Your task to perform on an android device: View the shopping cart on amazon. Search for sony triple a on amazon, select the first entry, add it to the cart, then select checkout. Image 0: 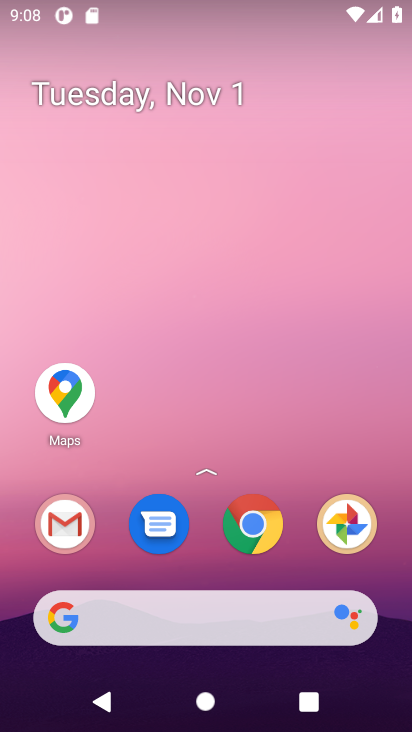
Step 0: press home button
Your task to perform on an android device: View the shopping cart on amazon. Search for sony triple a on amazon, select the first entry, add it to the cart, then select checkout. Image 1: 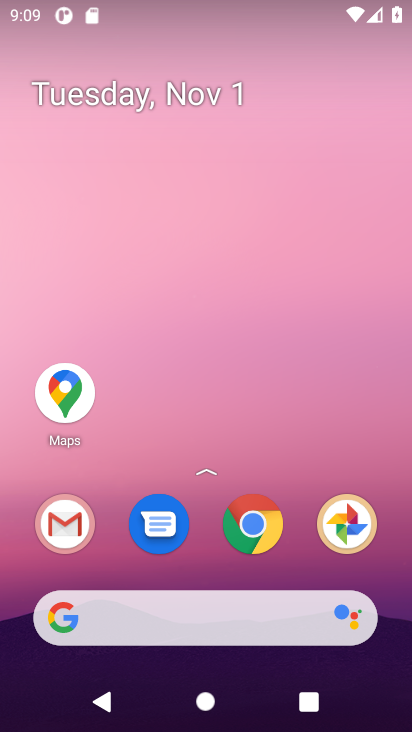
Step 1: press home button
Your task to perform on an android device: View the shopping cart on amazon. Search for sony triple a on amazon, select the first entry, add it to the cart, then select checkout. Image 2: 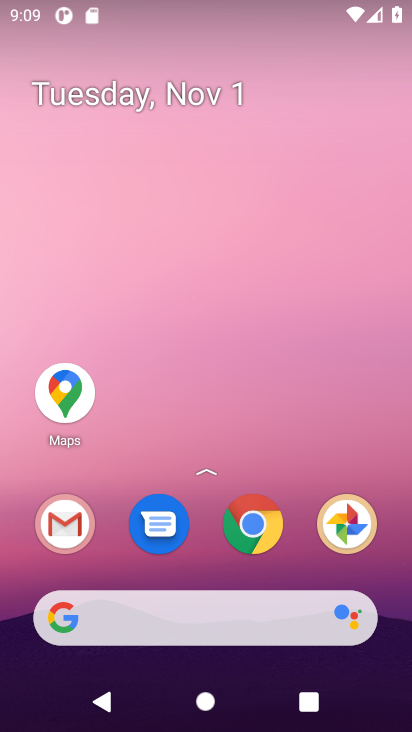
Step 2: click (90, 610)
Your task to perform on an android device: View the shopping cart on amazon. Search for sony triple a on amazon, select the first entry, add it to the cart, then select checkout. Image 3: 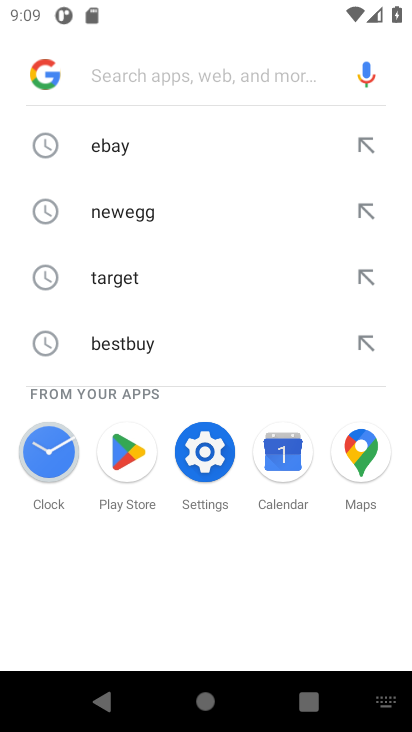
Step 3: type "amazon"
Your task to perform on an android device: View the shopping cart on amazon. Search for sony triple a on amazon, select the first entry, add it to the cart, then select checkout. Image 4: 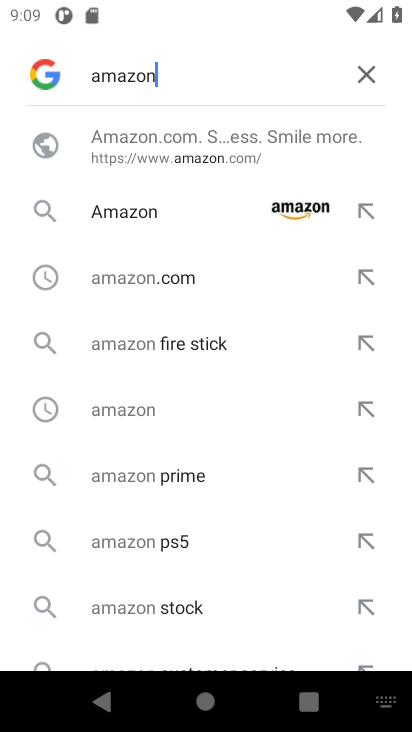
Step 4: press enter
Your task to perform on an android device: View the shopping cart on amazon. Search for sony triple a on amazon, select the first entry, add it to the cart, then select checkout. Image 5: 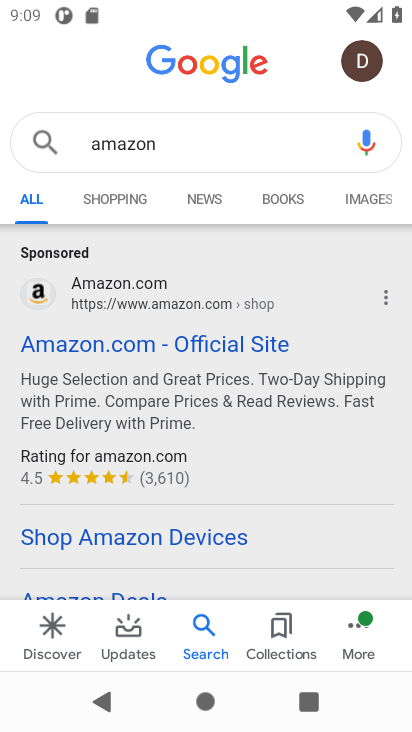
Step 5: click (69, 347)
Your task to perform on an android device: View the shopping cart on amazon. Search for sony triple a on amazon, select the first entry, add it to the cart, then select checkout. Image 6: 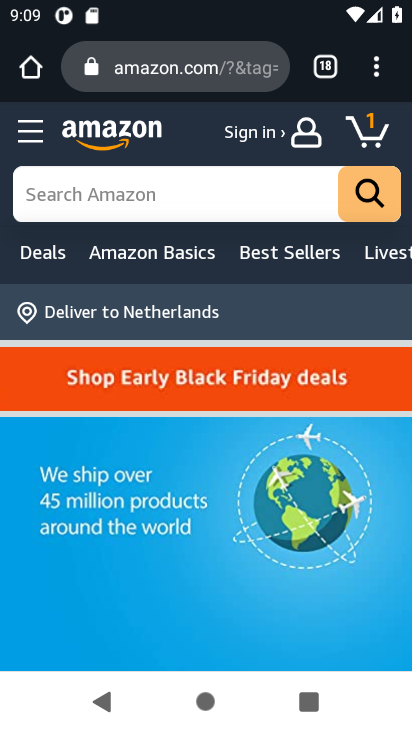
Step 6: click (366, 124)
Your task to perform on an android device: View the shopping cart on amazon. Search for sony triple a on amazon, select the first entry, add it to the cart, then select checkout. Image 7: 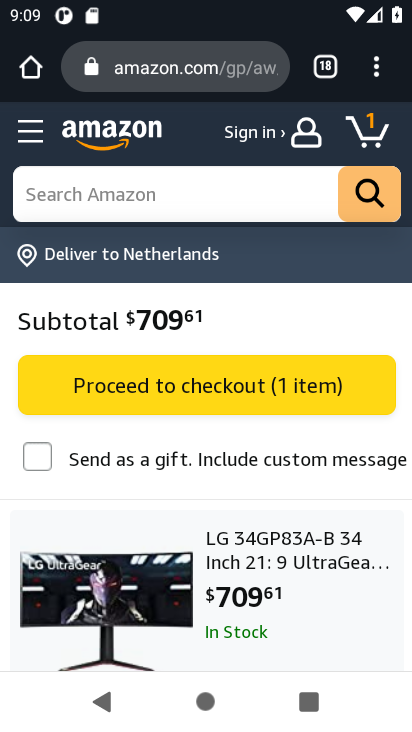
Step 7: click (51, 191)
Your task to perform on an android device: View the shopping cart on amazon. Search for sony triple a on amazon, select the first entry, add it to the cart, then select checkout. Image 8: 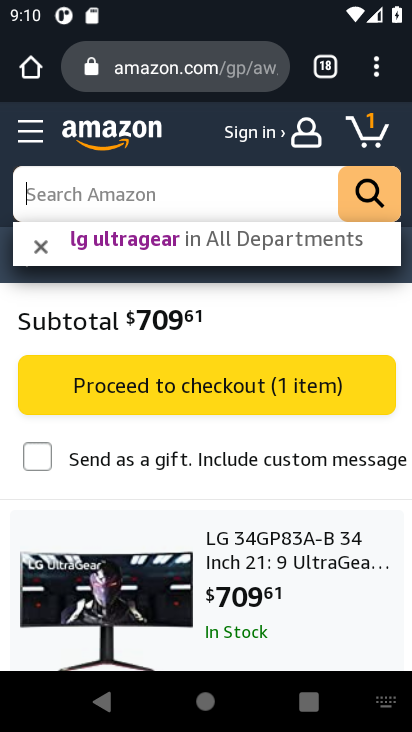
Step 8: type "sony triple a"
Your task to perform on an android device: View the shopping cart on amazon. Search for sony triple a on amazon, select the first entry, add it to the cart, then select checkout. Image 9: 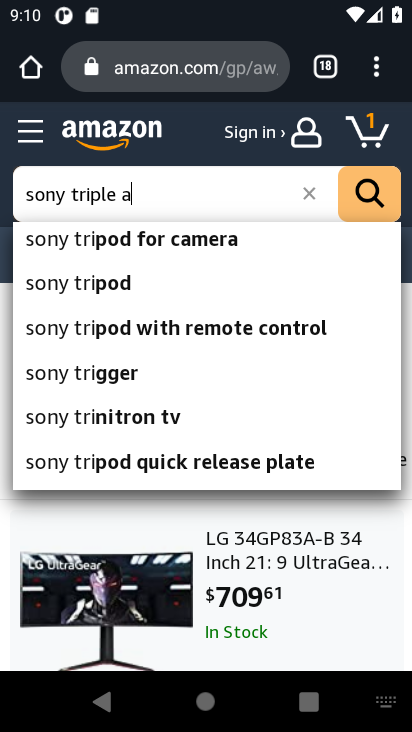
Step 9: press enter
Your task to perform on an android device: View the shopping cart on amazon. Search for sony triple a on amazon, select the first entry, add it to the cart, then select checkout. Image 10: 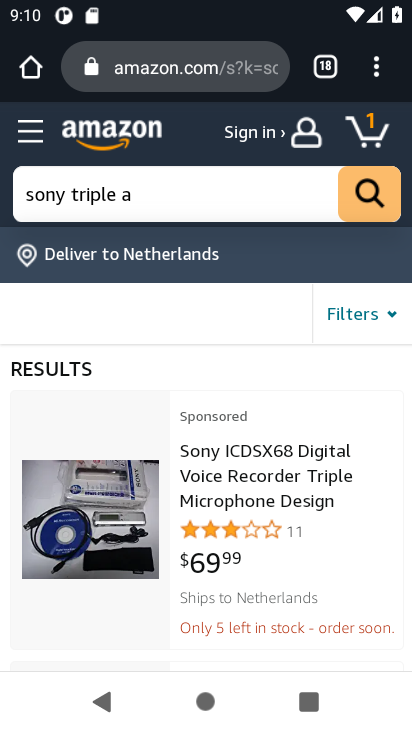
Step 10: task complete